Your task to perform on an android device: turn off wifi Image 0: 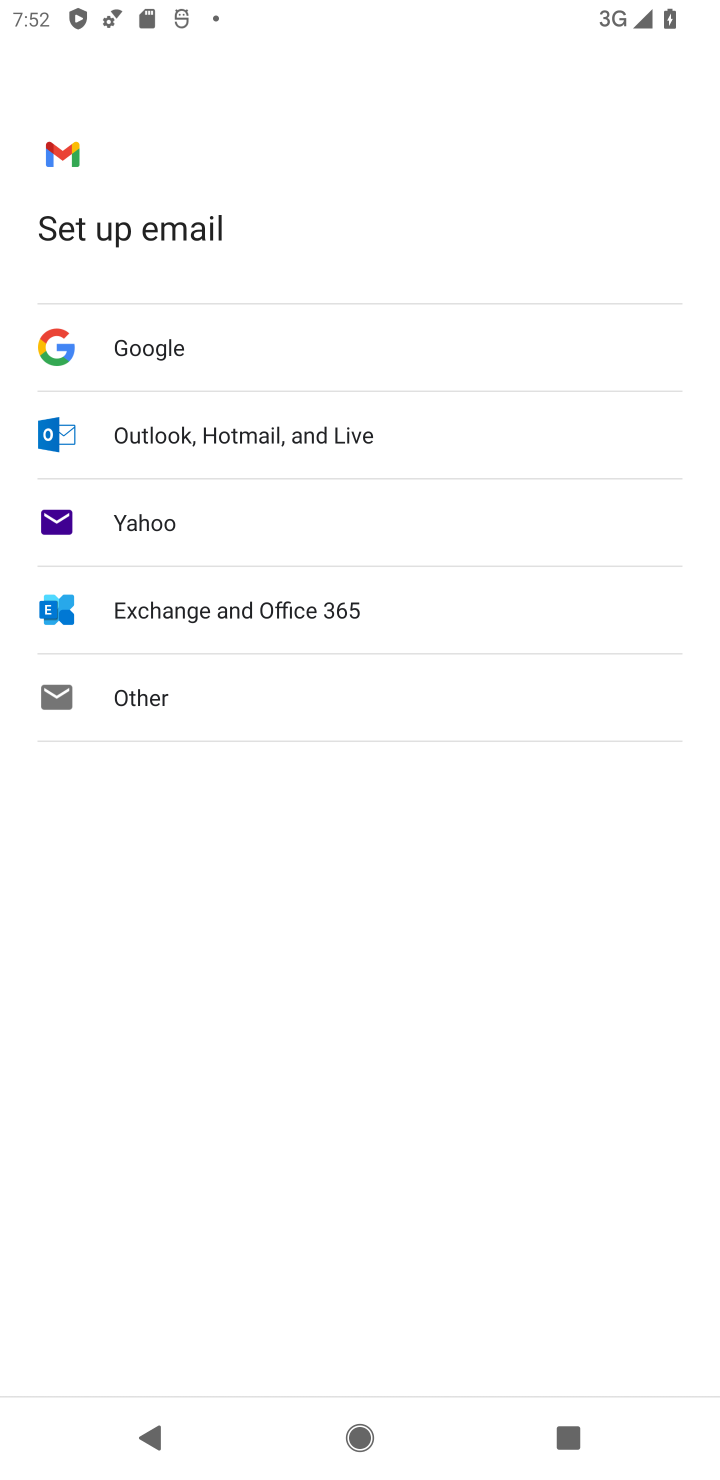
Step 0: press home button
Your task to perform on an android device: turn off wifi Image 1: 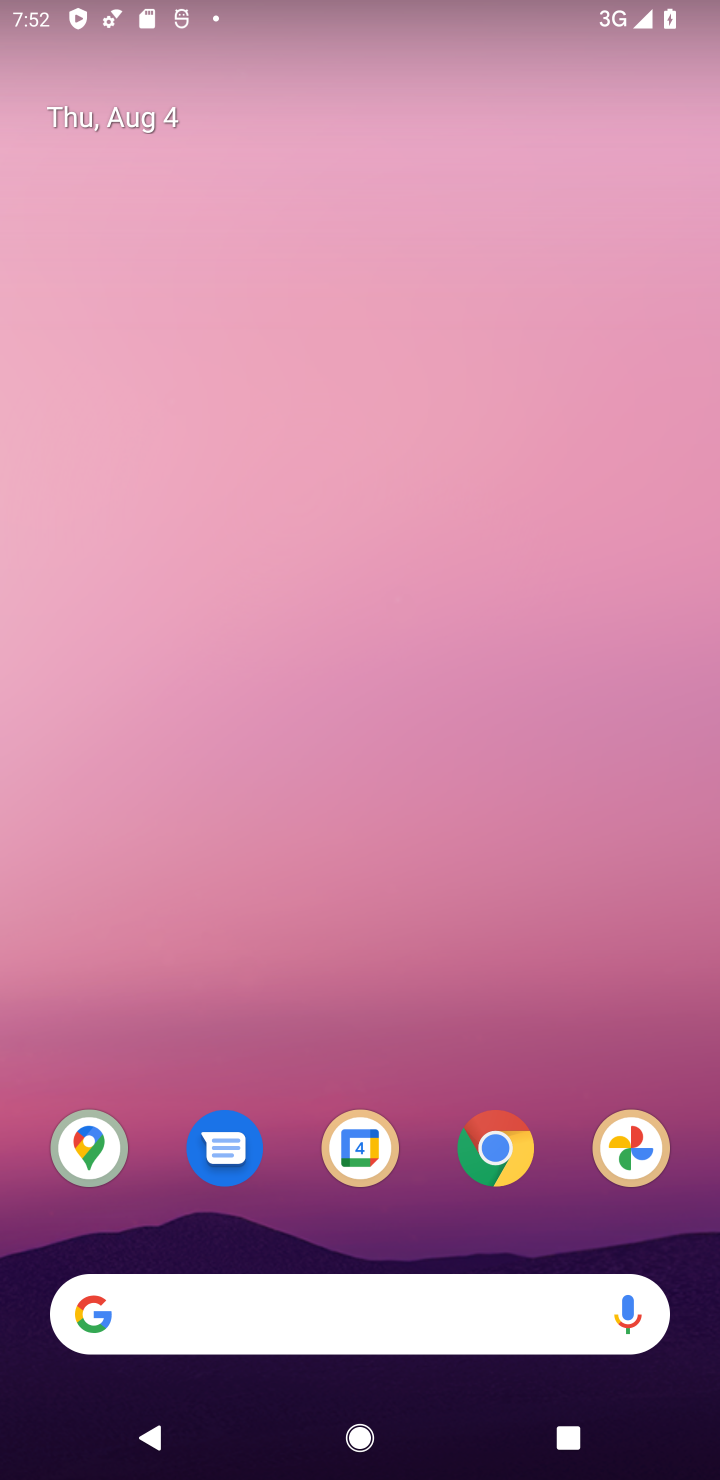
Step 1: drag from (570, 1006) to (656, 28)
Your task to perform on an android device: turn off wifi Image 2: 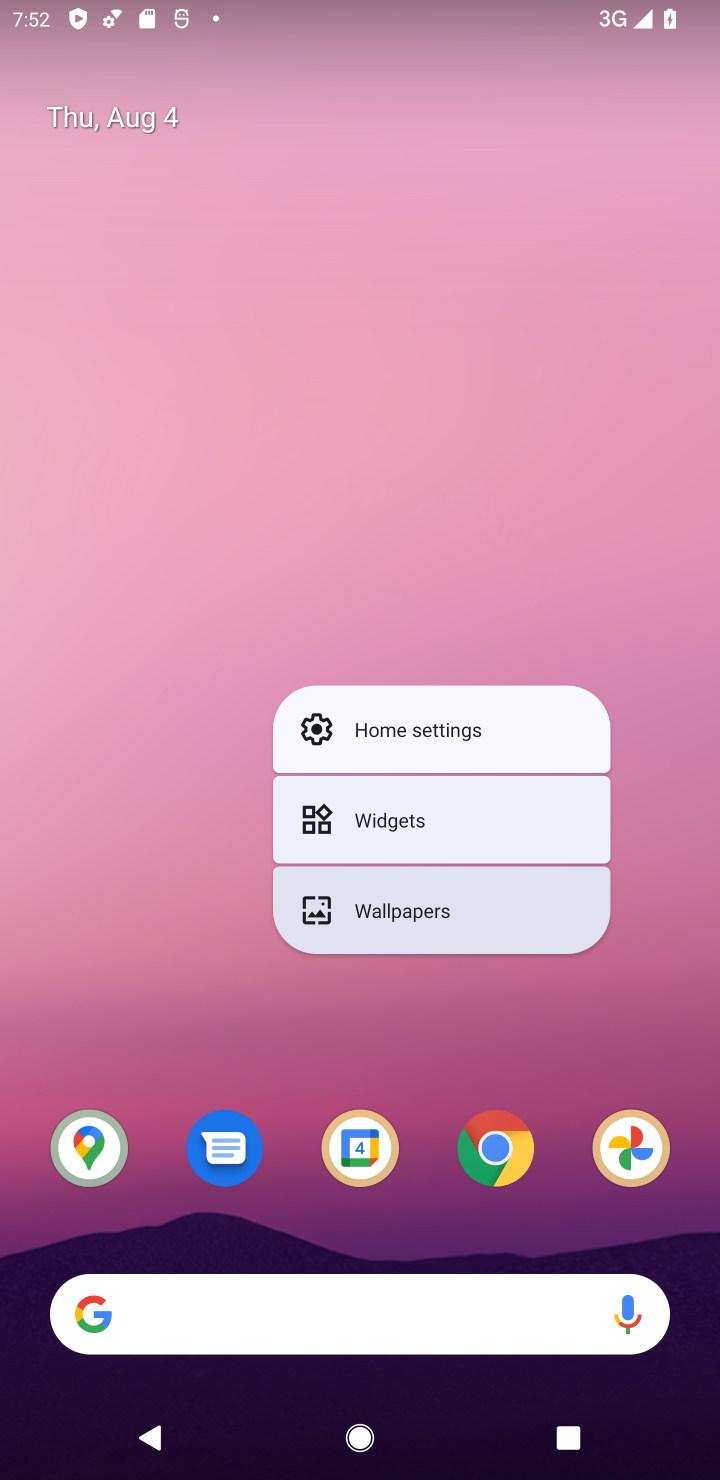
Step 2: drag from (689, 1263) to (625, 298)
Your task to perform on an android device: turn off wifi Image 3: 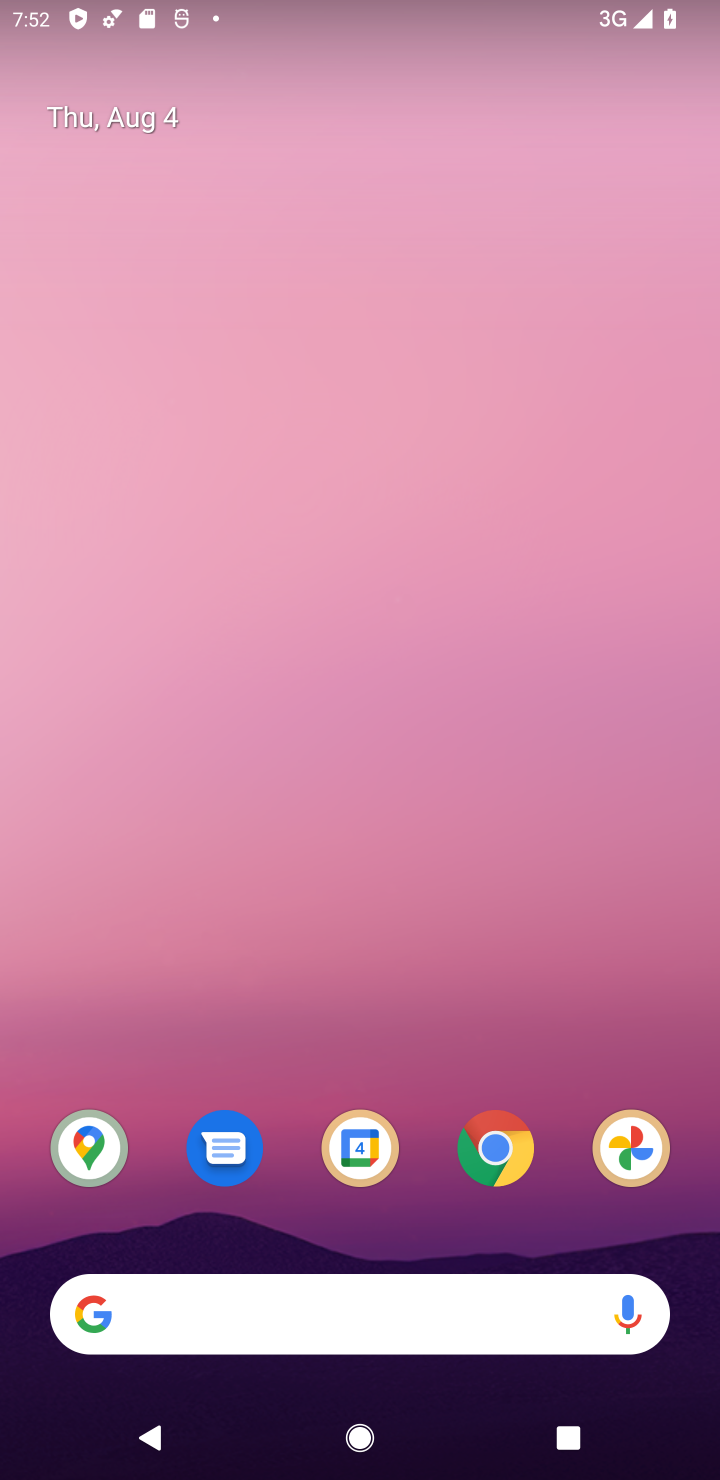
Step 3: drag from (425, 1193) to (384, 167)
Your task to perform on an android device: turn off wifi Image 4: 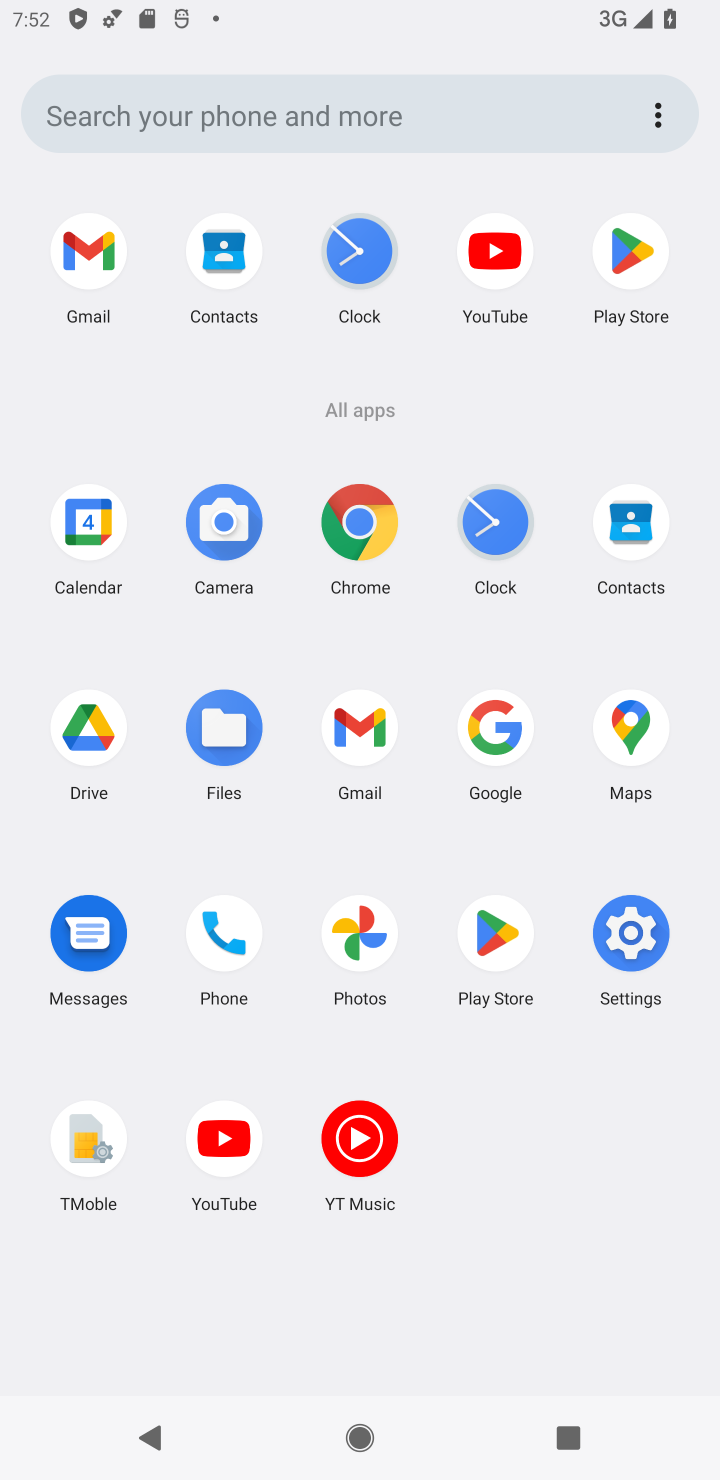
Step 4: click (620, 969)
Your task to perform on an android device: turn off wifi Image 5: 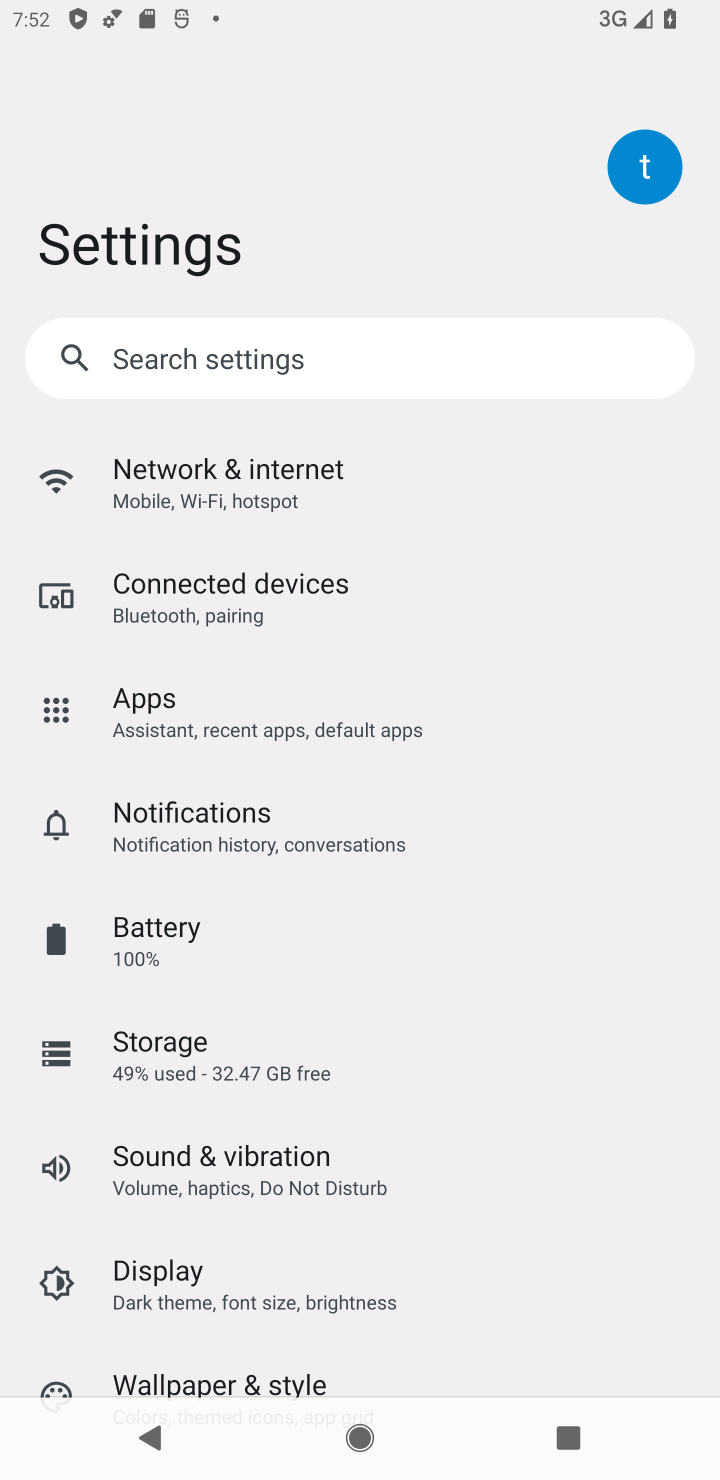
Step 5: click (493, 479)
Your task to perform on an android device: turn off wifi Image 6: 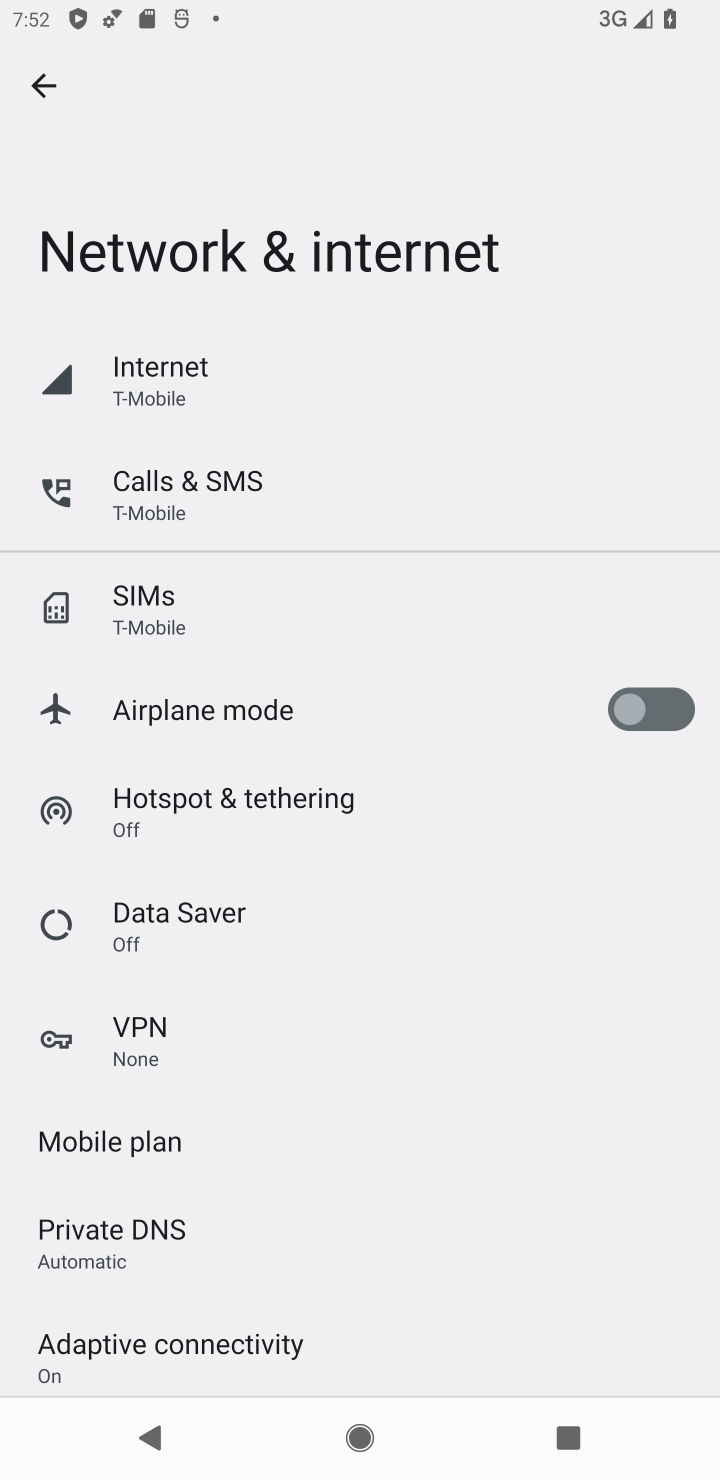
Step 6: click (374, 402)
Your task to perform on an android device: turn off wifi Image 7: 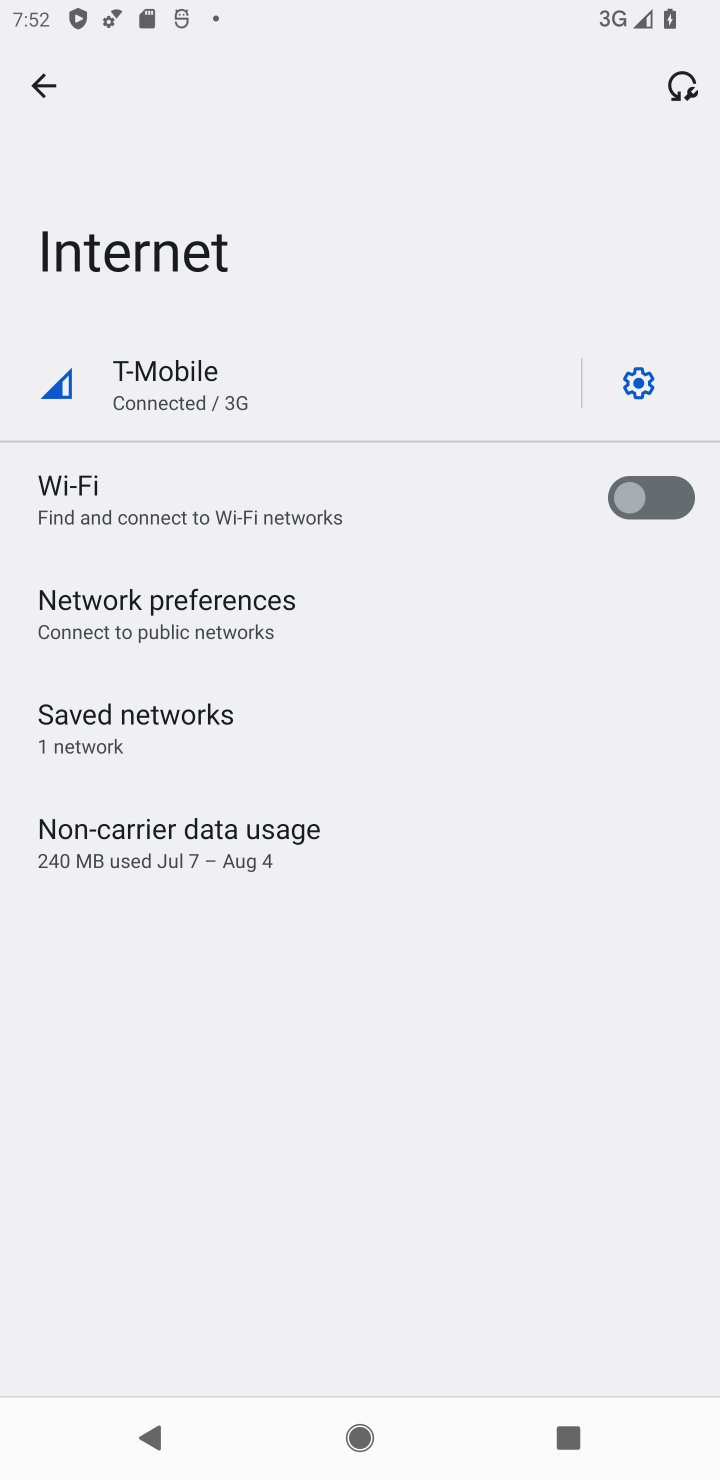
Step 7: task complete